Your task to perform on an android device: Go to notification settings Image 0: 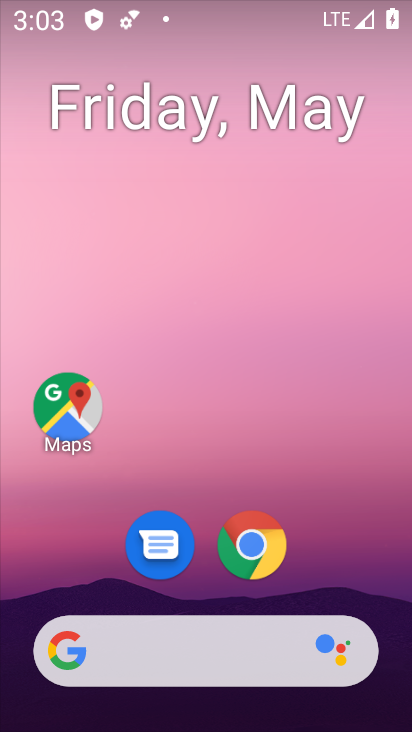
Step 0: drag from (334, 468) to (386, 65)
Your task to perform on an android device: Go to notification settings Image 1: 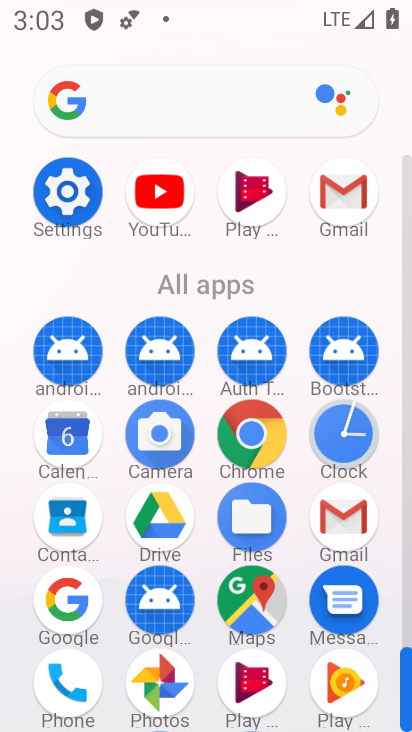
Step 1: click (61, 208)
Your task to perform on an android device: Go to notification settings Image 2: 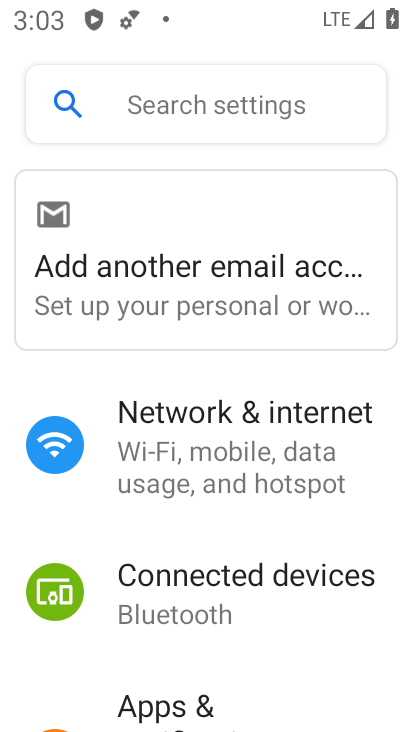
Step 2: drag from (247, 520) to (253, 86)
Your task to perform on an android device: Go to notification settings Image 3: 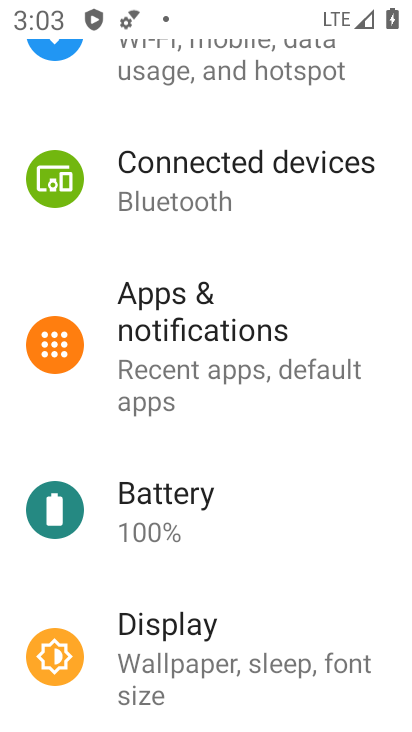
Step 3: click (171, 330)
Your task to perform on an android device: Go to notification settings Image 4: 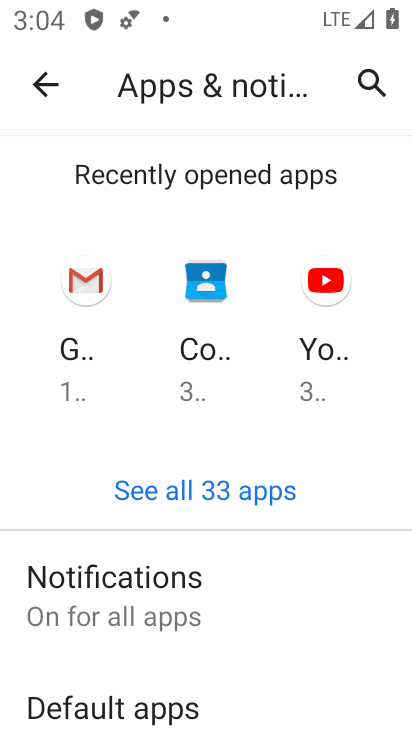
Step 4: task complete